Your task to perform on an android device: Check the news Image 0: 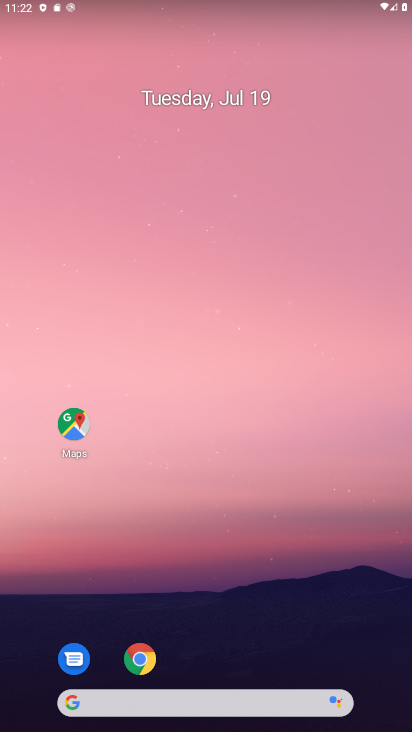
Step 0: press home button
Your task to perform on an android device: Check the news Image 1: 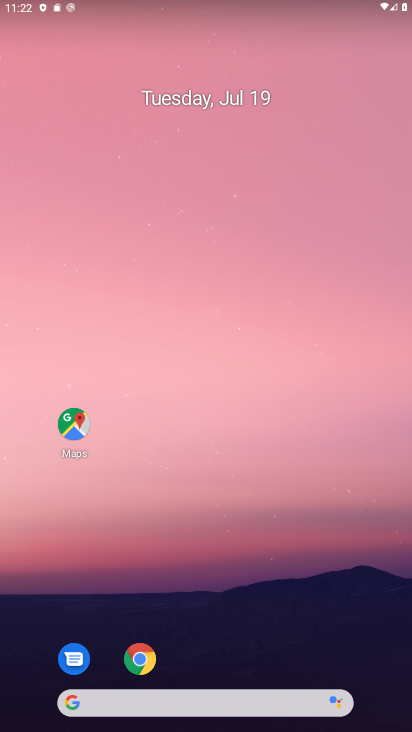
Step 1: drag from (9, 332) to (409, 324)
Your task to perform on an android device: Check the news Image 2: 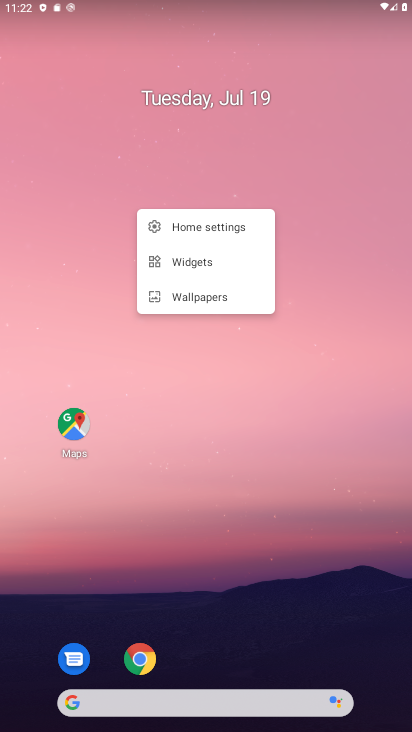
Step 2: click (243, 549)
Your task to perform on an android device: Check the news Image 3: 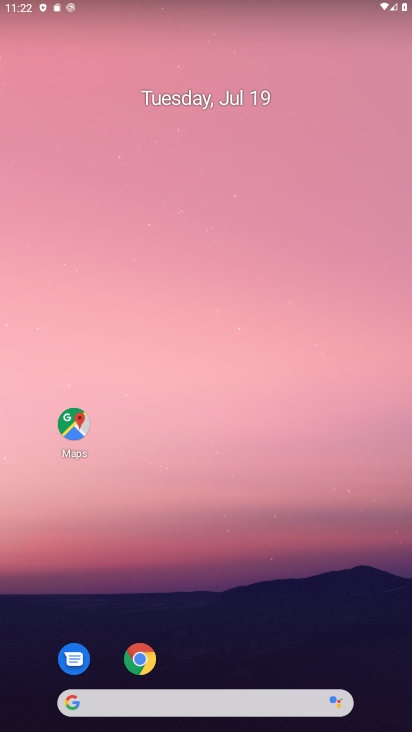
Step 3: task complete